Your task to perform on an android device: set an alarm Image 0: 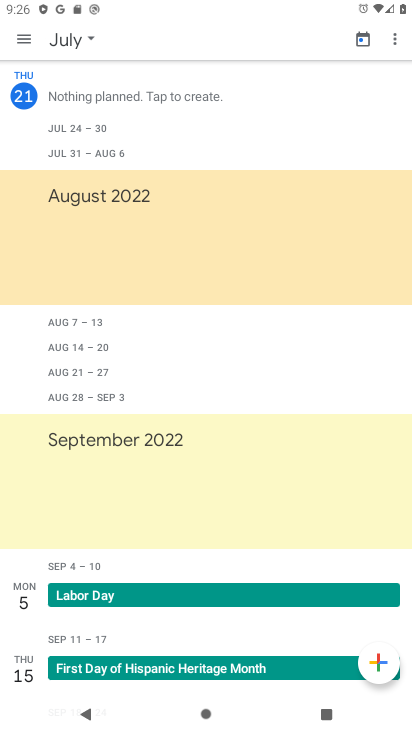
Step 0: press home button
Your task to perform on an android device: set an alarm Image 1: 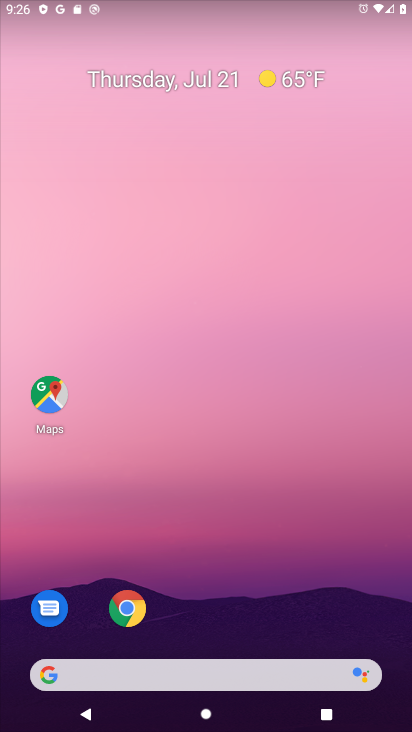
Step 1: click (267, 112)
Your task to perform on an android device: set an alarm Image 2: 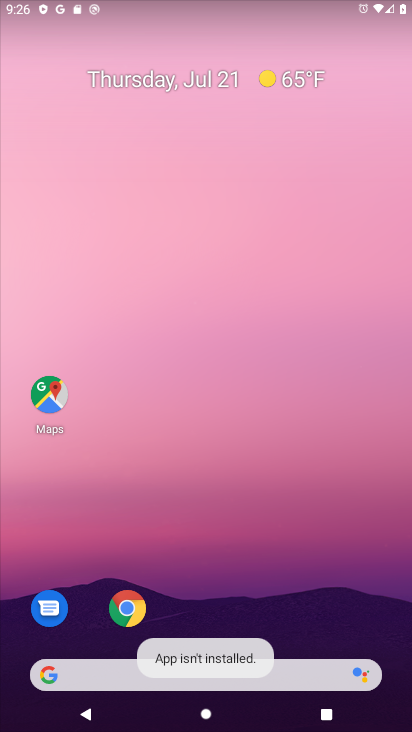
Step 2: click (211, 78)
Your task to perform on an android device: set an alarm Image 3: 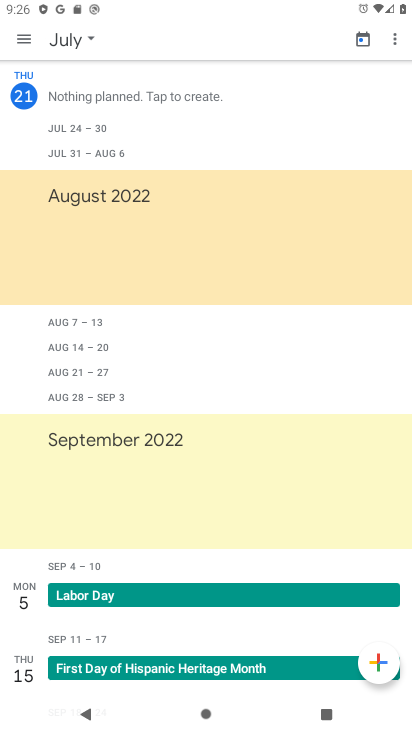
Step 3: press home button
Your task to perform on an android device: set an alarm Image 4: 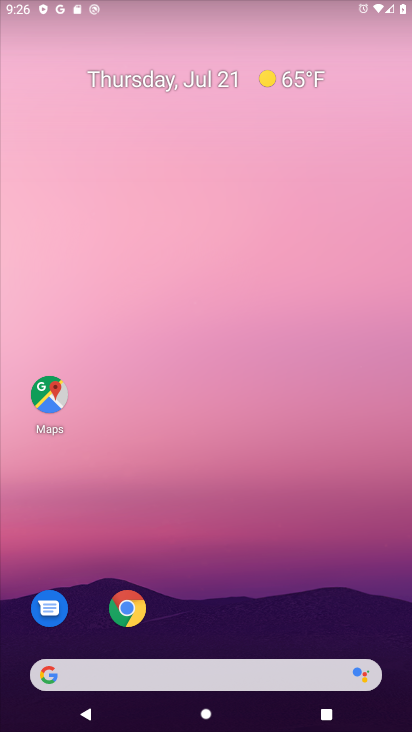
Step 4: drag from (238, 473) to (236, 109)
Your task to perform on an android device: set an alarm Image 5: 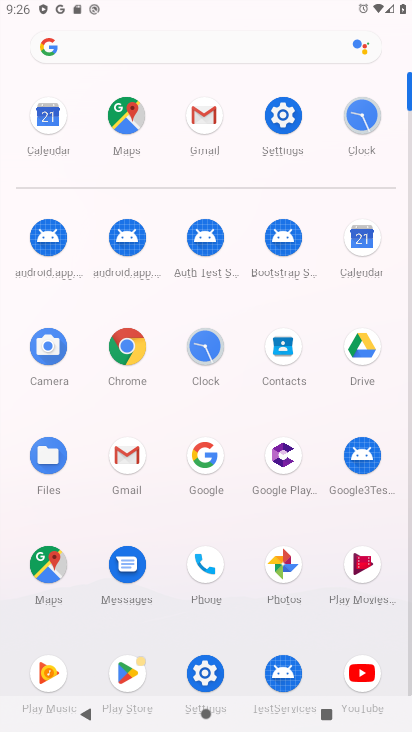
Step 5: click (203, 352)
Your task to perform on an android device: set an alarm Image 6: 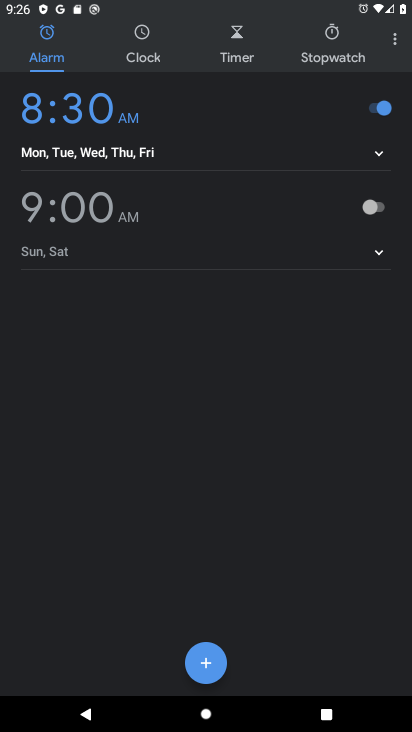
Step 6: task complete